Your task to perform on an android device: Search for vegetarian restaurants on Maps Image 0: 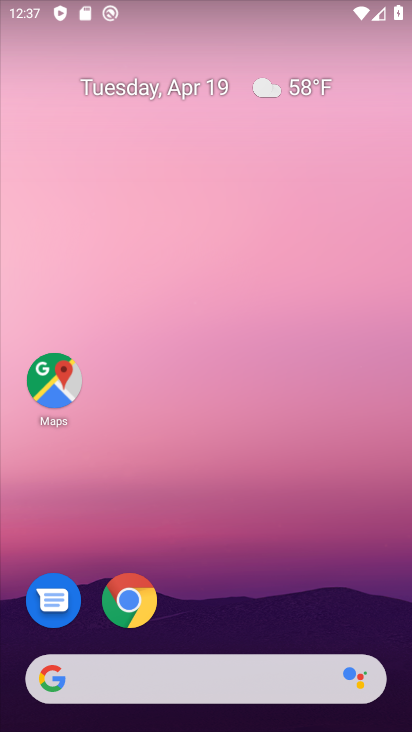
Step 0: drag from (367, 587) to (167, 126)
Your task to perform on an android device: Search for vegetarian restaurants on Maps Image 1: 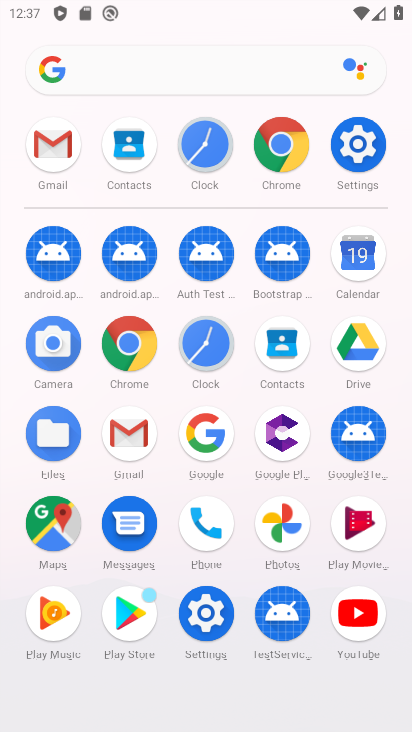
Step 1: click (51, 522)
Your task to perform on an android device: Search for vegetarian restaurants on Maps Image 2: 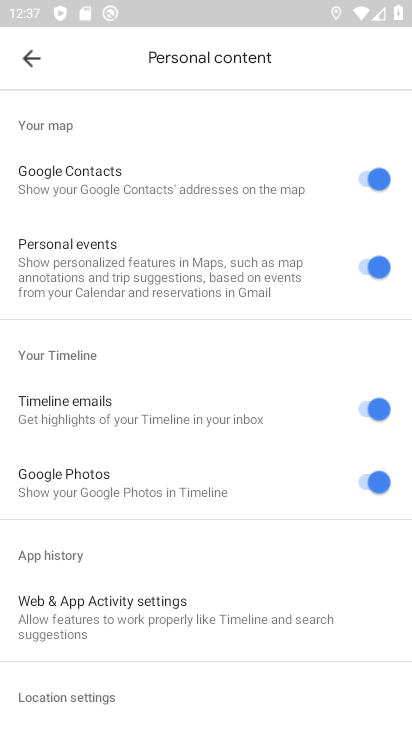
Step 2: click (39, 57)
Your task to perform on an android device: Search for vegetarian restaurants on Maps Image 3: 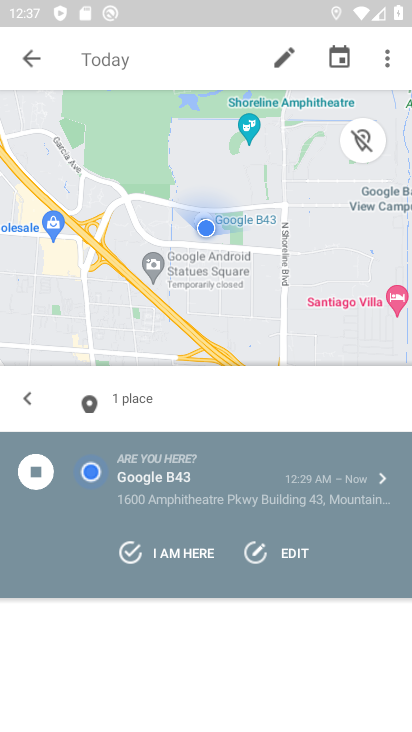
Step 3: click (33, 60)
Your task to perform on an android device: Search for vegetarian restaurants on Maps Image 4: 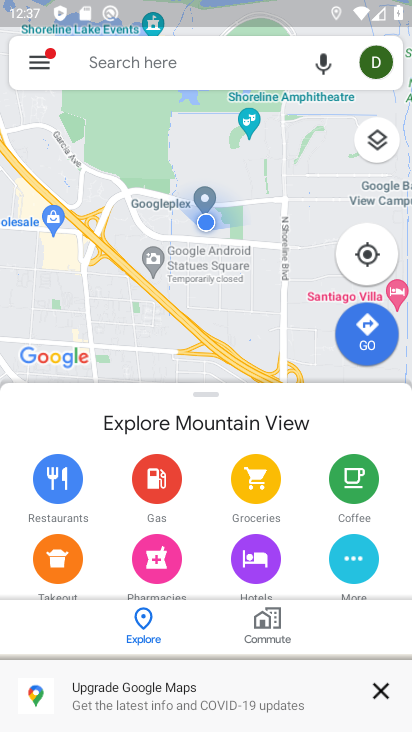
Step 4: click (106, 69)
Your task to perform on an android device: Search for vegetarian restaurants on Maps Image 5: 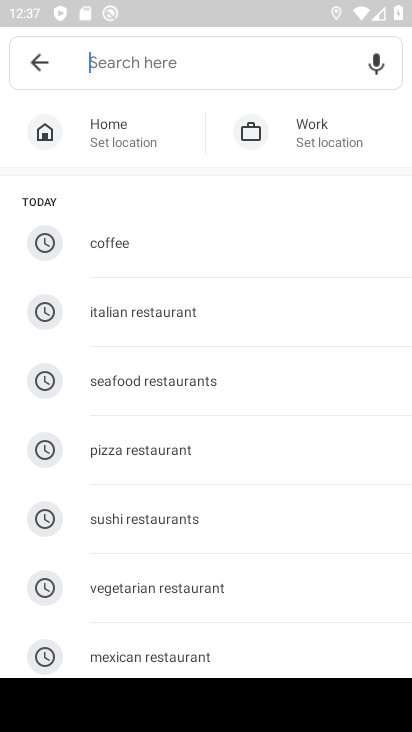
Step 5: type "vegetarian restaurants"
Your task to perform on an android device: Search for vegetarian restaurants on Maps Image 6: 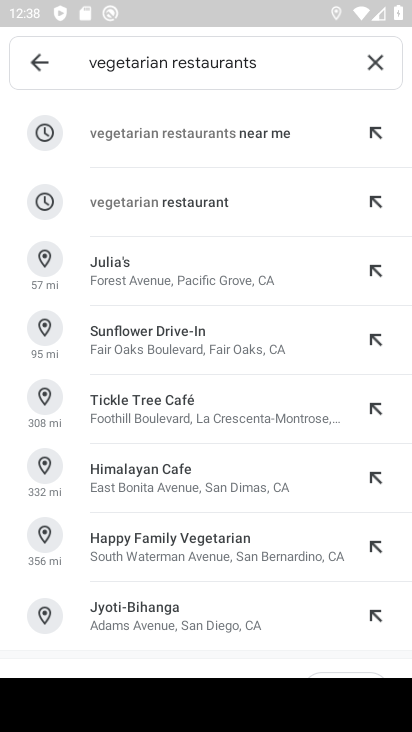
Step 6: click (249, 214)
Your task to perform on an android device: Search for vegetarian restaurants on Maps Image 7: 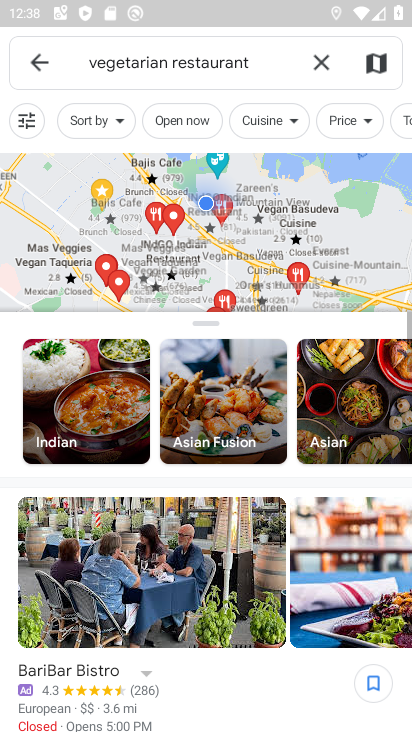
Step 7: task complete